Your task to perform on an android device: Show me recent news Image 0: 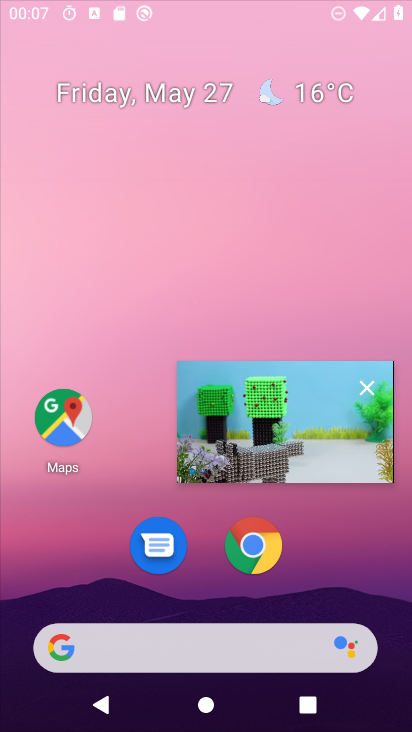
Step 0: press home button
Your task to perform on an android device: Show me recent news Image 1: 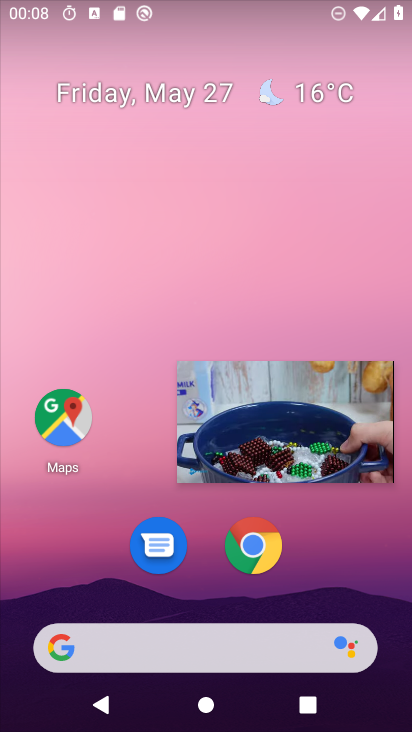
Step 1: click (59, 644)
Your task to perform on an android device: Show me recent news Image 2: 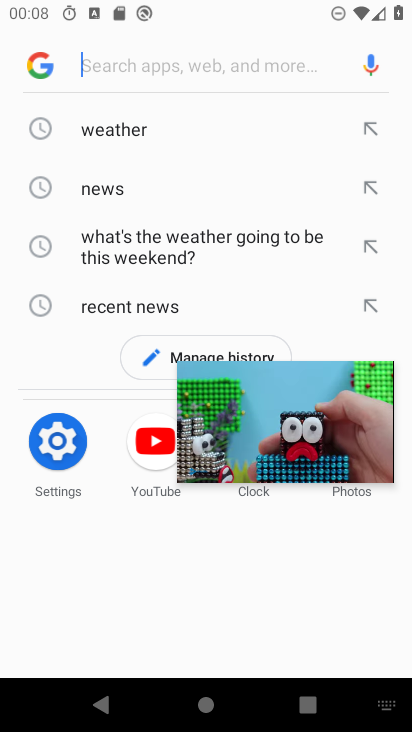
Step 2: click (385, 374)
Your task to perform on an android device: Show me recent news Image 3: 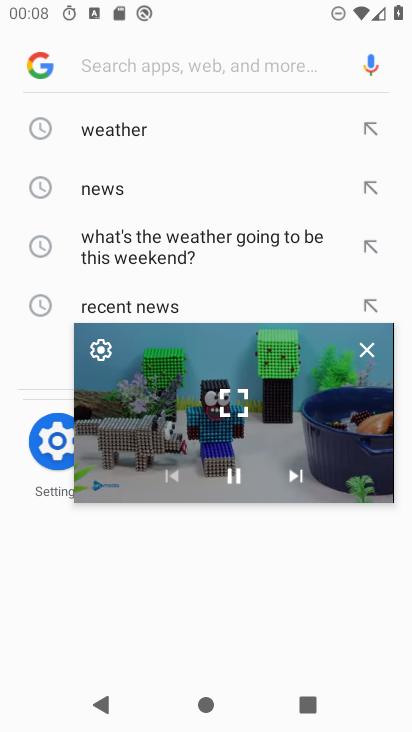
Step 3: click (366, 349)
Your task to perform on an android device: Show me recent news Image 4: 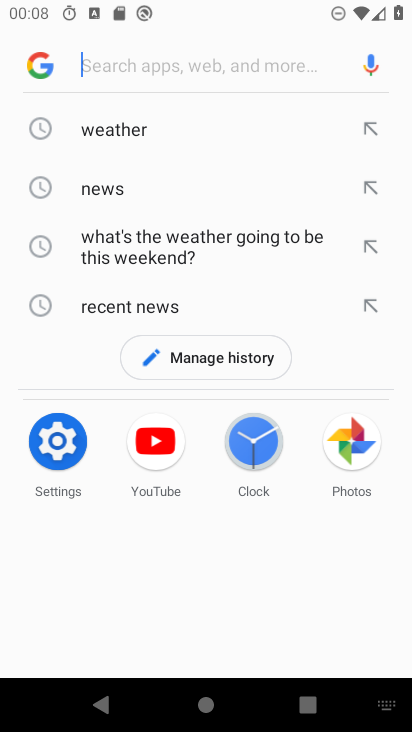
Step 4: click (130, 310)
Your task to perform on an android device: Show me recent news Image 5: 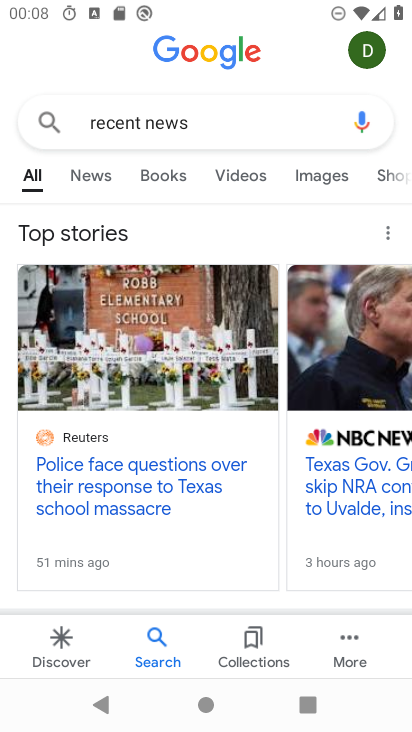
Step 5: task complete